Your task to perform on an android device: turn on improve location accuracy Image 0: 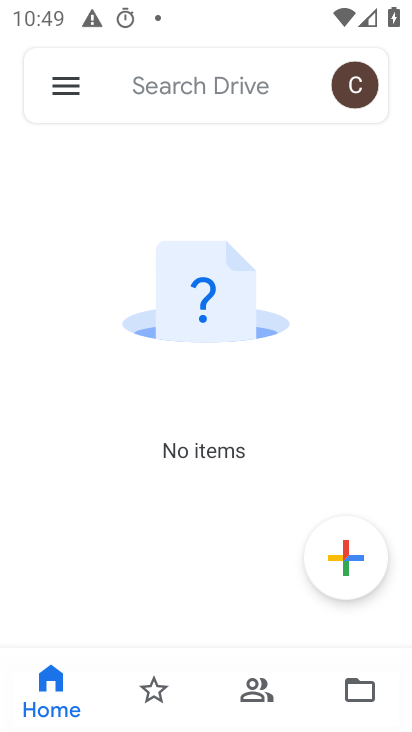
Step 0: press home button
Your task to perform on an android device: turn on improve location accuracy Image 1: 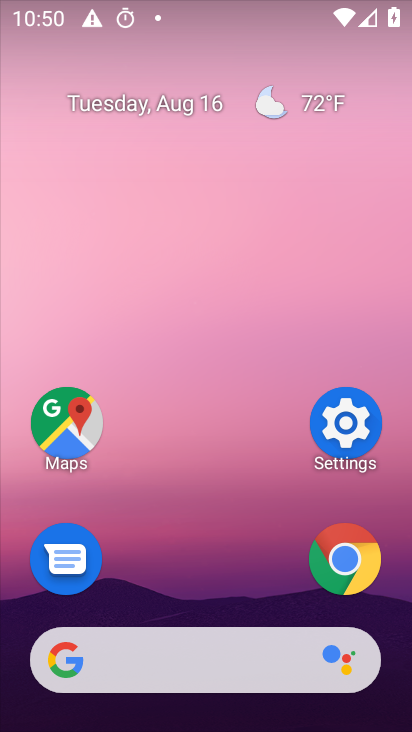
Step 1: click (338, 434)
Your task to perform on an android device: turn on improve location accuracy Image 2: 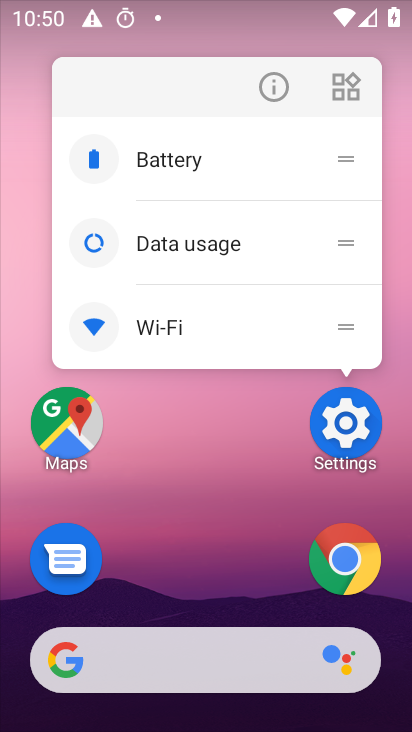
Step 2: click (341, 424)
Your task to perform on an android device: turn on improve location accuracy Image 3: 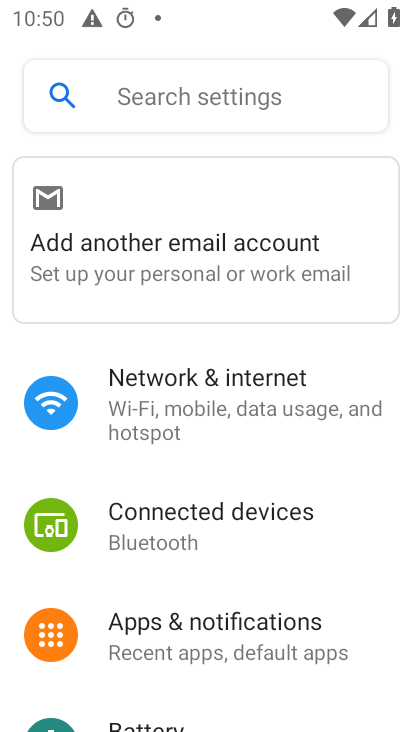
Step 3: drag from (196, 691) to (222, 308)
Your task to perform on an android device: turn on improve location accuracy Image 4: 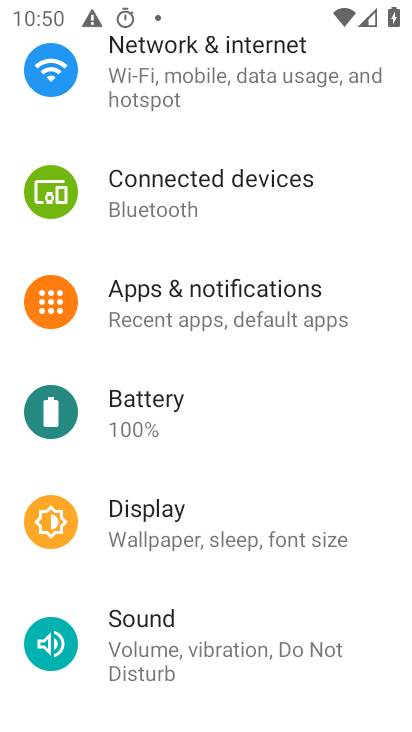
Step 4: drag from (249, 566) to (358, 126)
Your task to perform on an android device: turn on improve location accuracy Image 5: 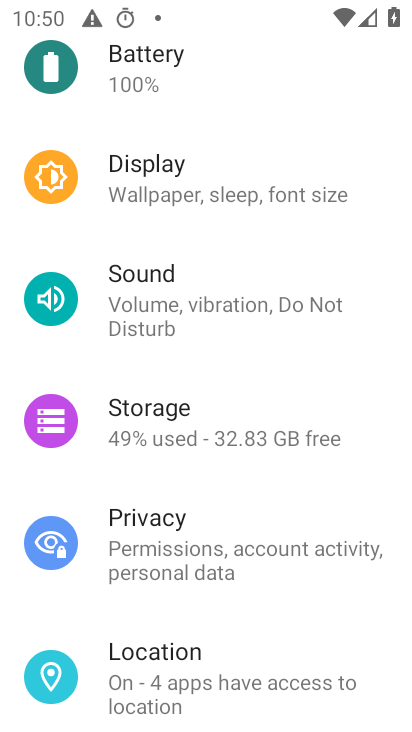
Step 5: click (189, 658)
Your task to perform on an android device: turn on improve location accuracy Image 6: 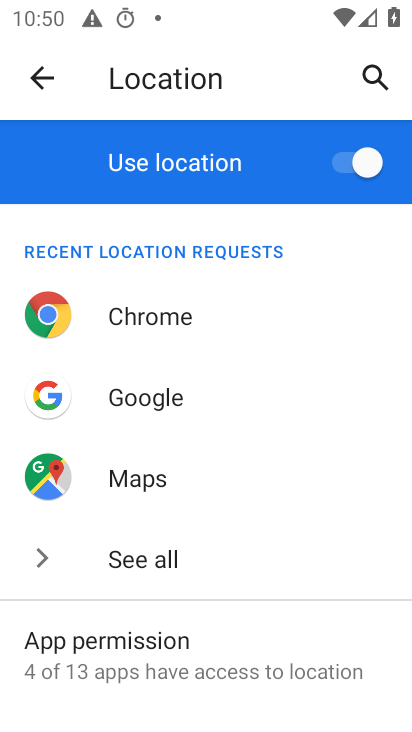
Step 6: drag from (238, 616) to (338, 229)
Your task to perform on an android device: turn on improve location accuracy Image 7: 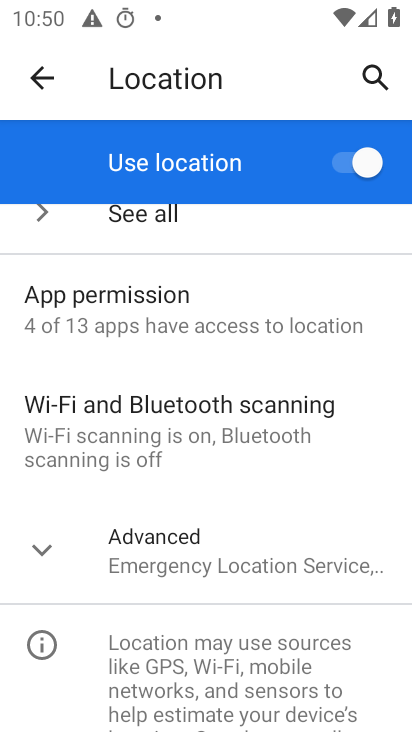
Step 7: click (180, 548)
Your task to perform on an android device: turn on improve location accuracy Image 8: 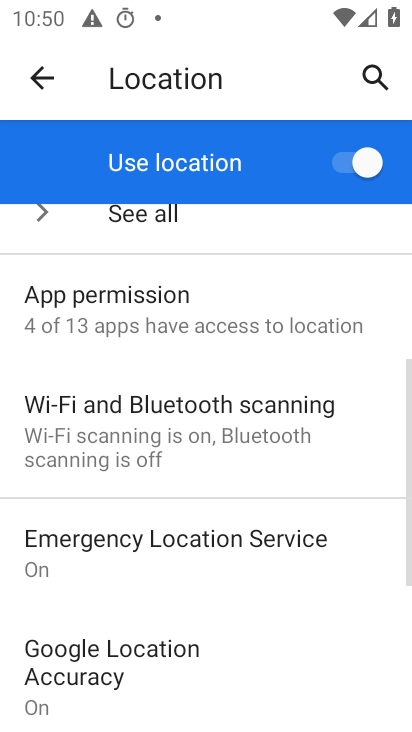
Step 8: drag from (214, 625) to (265, 137)
Your task to perform on an android device: turn on improve location accuracy Image 9: 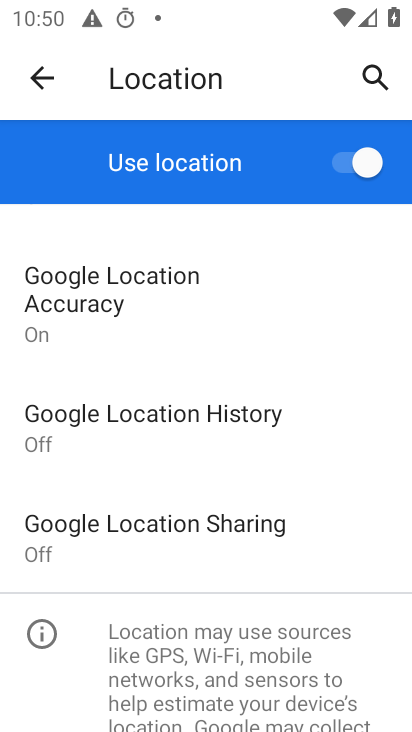
Step 9: click (109, 276)
Your task to perform on an android device: turn on improve location accuracy Image 10: 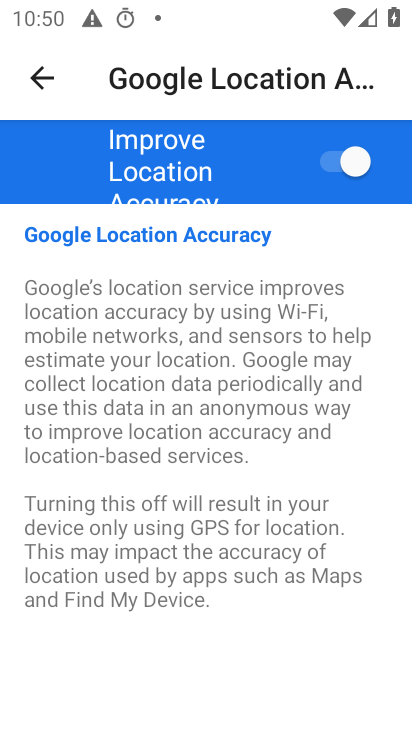
Step 10: task complete